Your task to perform on an android device: refresh tabs in the chrome app Image 0: 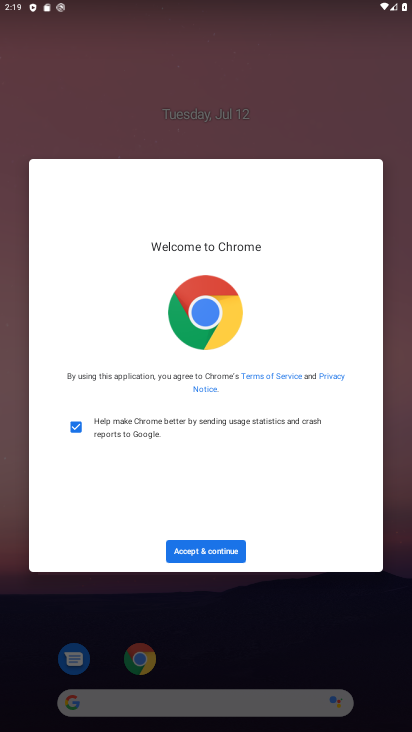
Step 0: click (214, 558)
Your task to perform on an android device: refresh tabs in the chrome app Image 1: 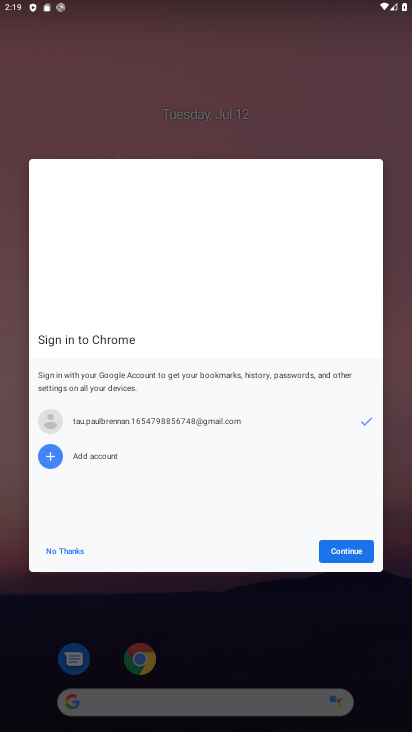
Step 1: click (333, 548)
Your task to perform on an android device: refresh tabs in the chrome app Image 2: 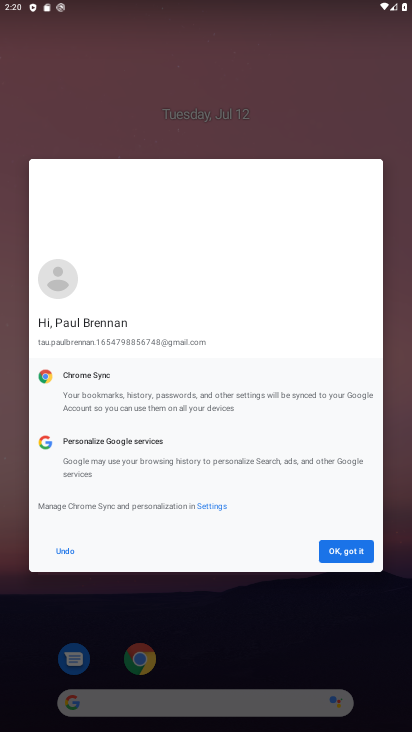
Step 2: click (346, 558)
Your task to perform on an android device: refresh tabs in the chrome app Image 3: 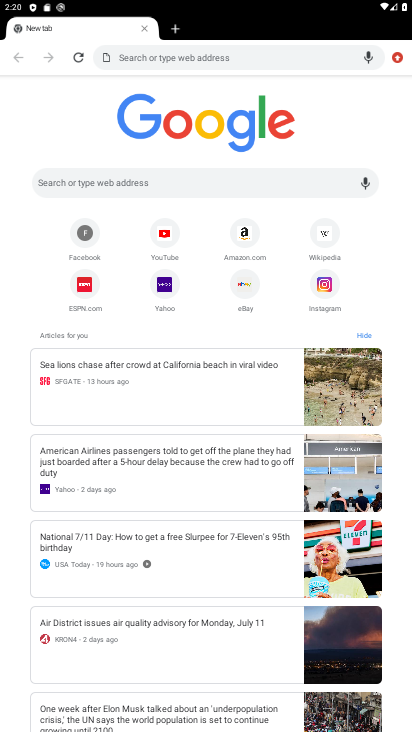
Step 3: click (77, 64)
Your task to perform on an android device: refresh tabs in the chrome app Image 4: 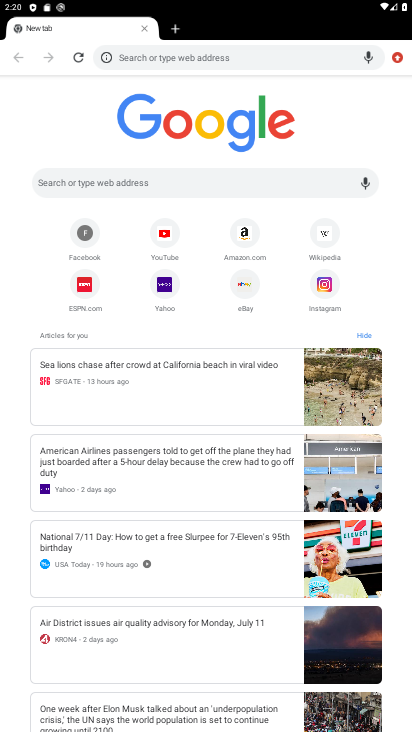
Step 4: click (75, 50)
Your task to perform on an android device: refresh tabs in the chrome app Image 5: 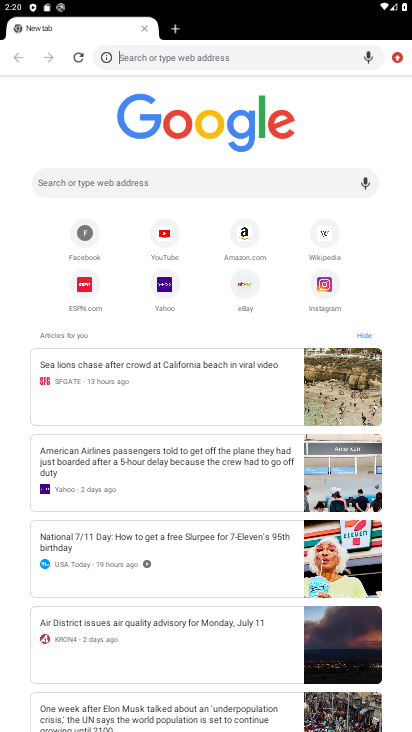
Step 5: task complete